Your task to perform on an android device: change the clock display to digital Image 0: 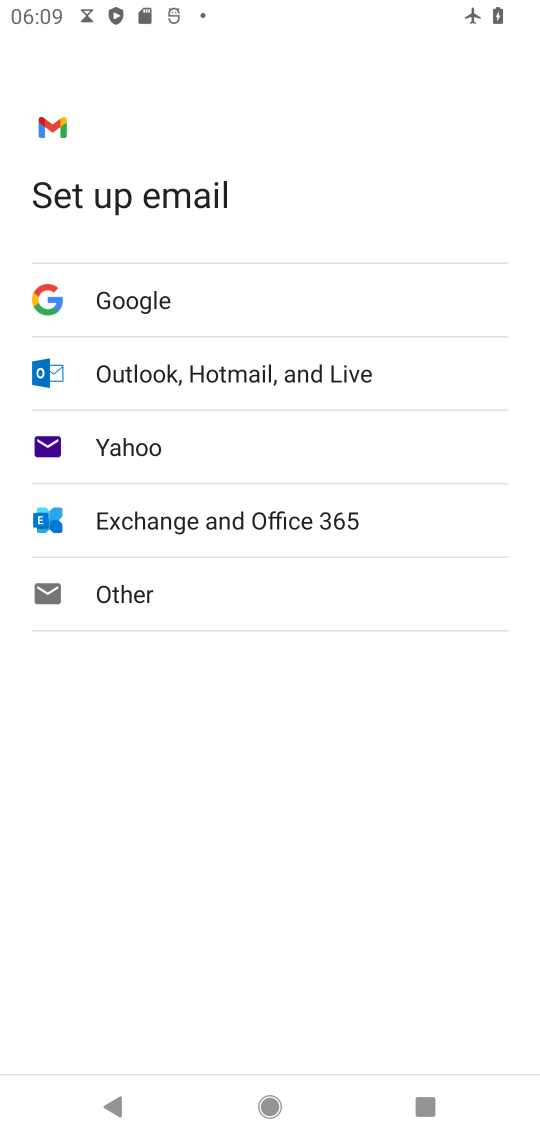
Step 0: press home button
Your task to perform on an android device: change the clock display to digital Image 1: 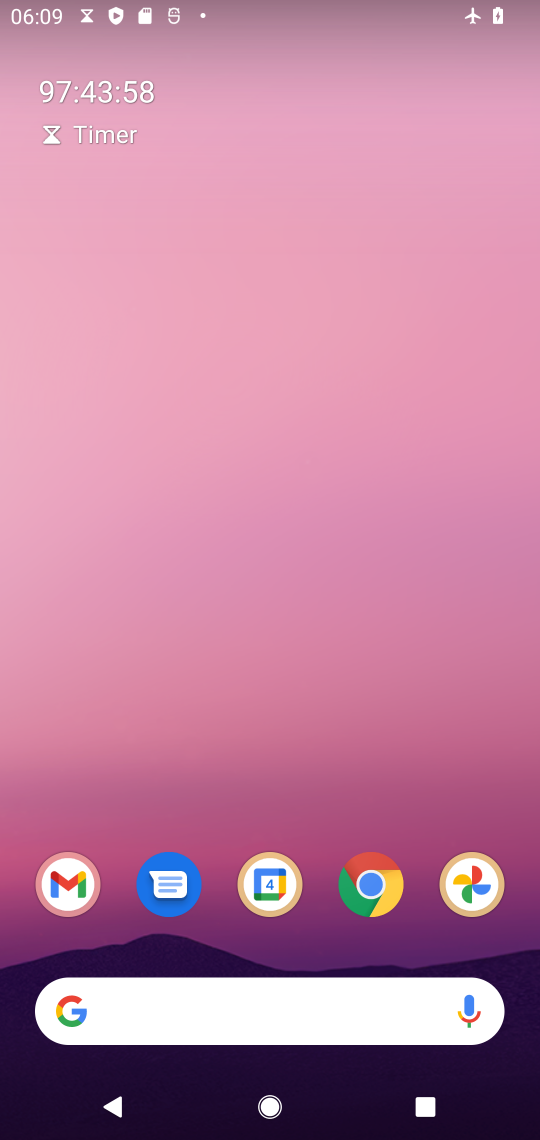
Step 1: drag from (274, 943) to (323, 338)
Your task to perform on an android device: change the clock display to digital Image 2: 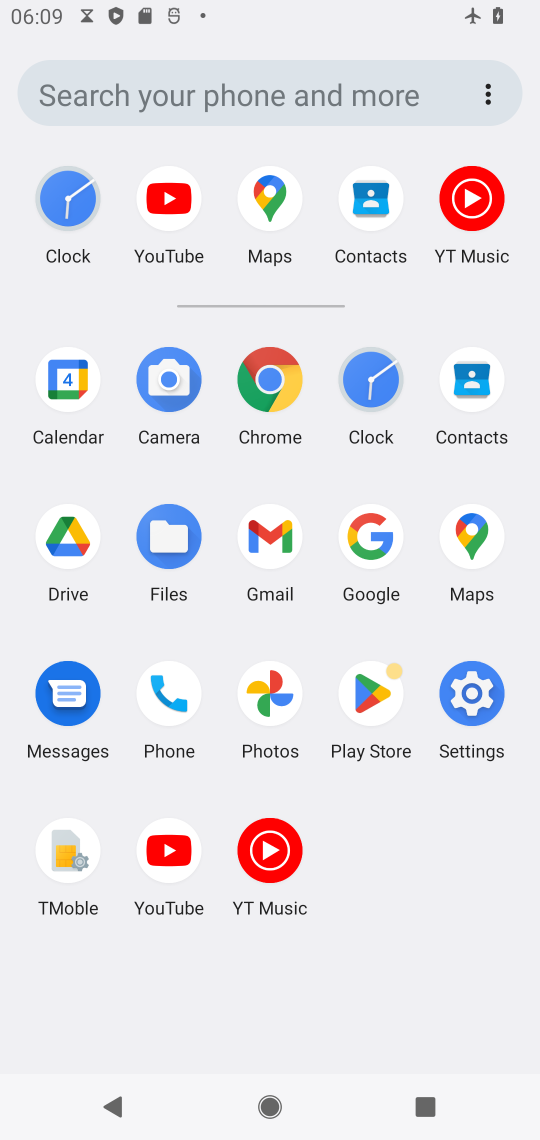
Step 2: click (357, 357)
Your task to perform on an android device: change the clock display to digital Image 3: 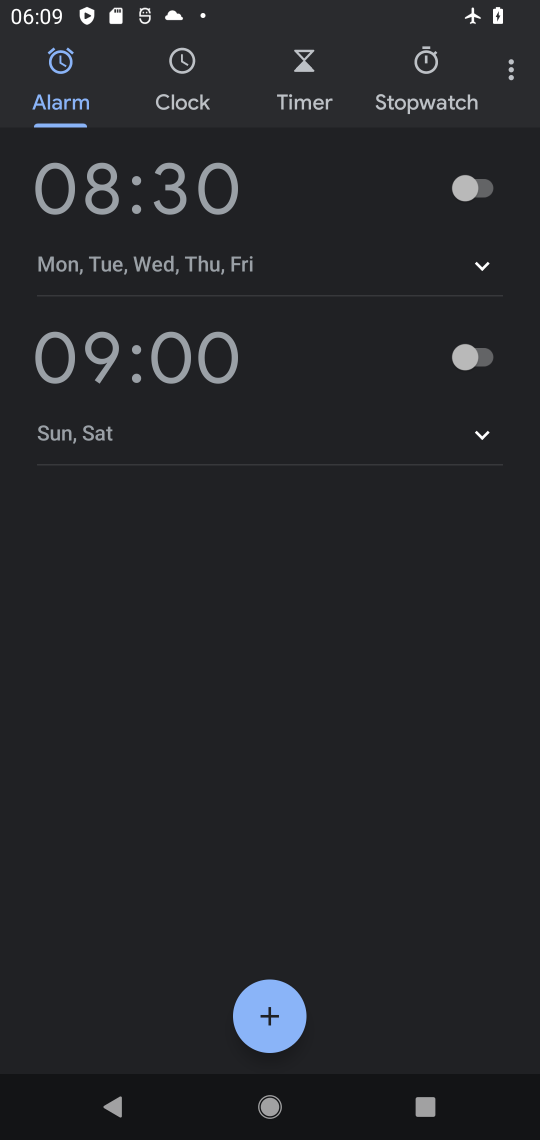
Step 3: click (507, 81)
Your task to perform on an android device: change the clock display to digital Image 4: 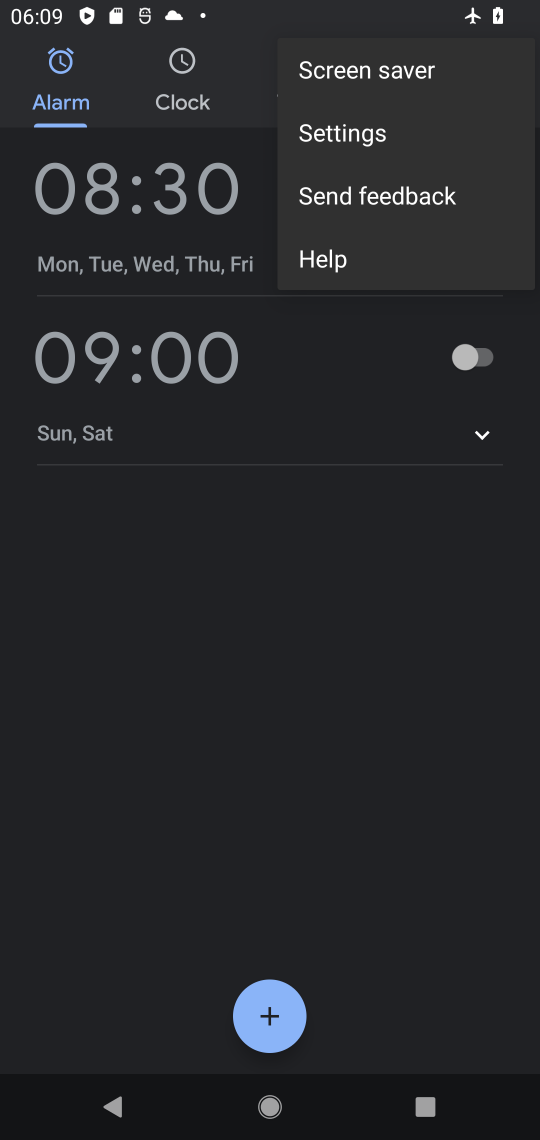
Step 4: click (386, 121)
Your task to perform on an android device: change the clock display to digital Image 5: 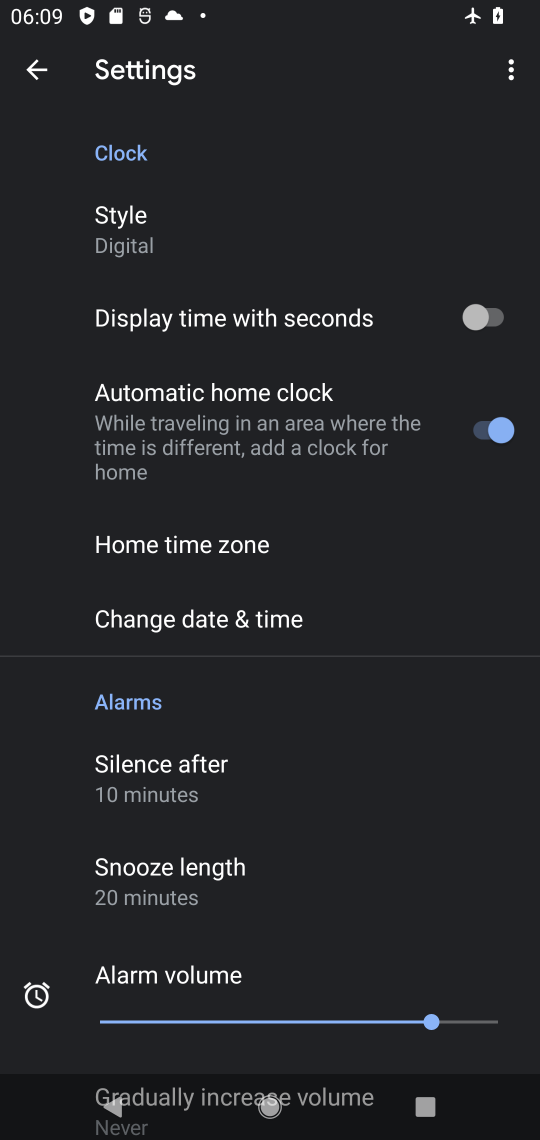
Step 5: click (148, 193)
Your task to perform on an android device: change the clock display to digital Image 6: 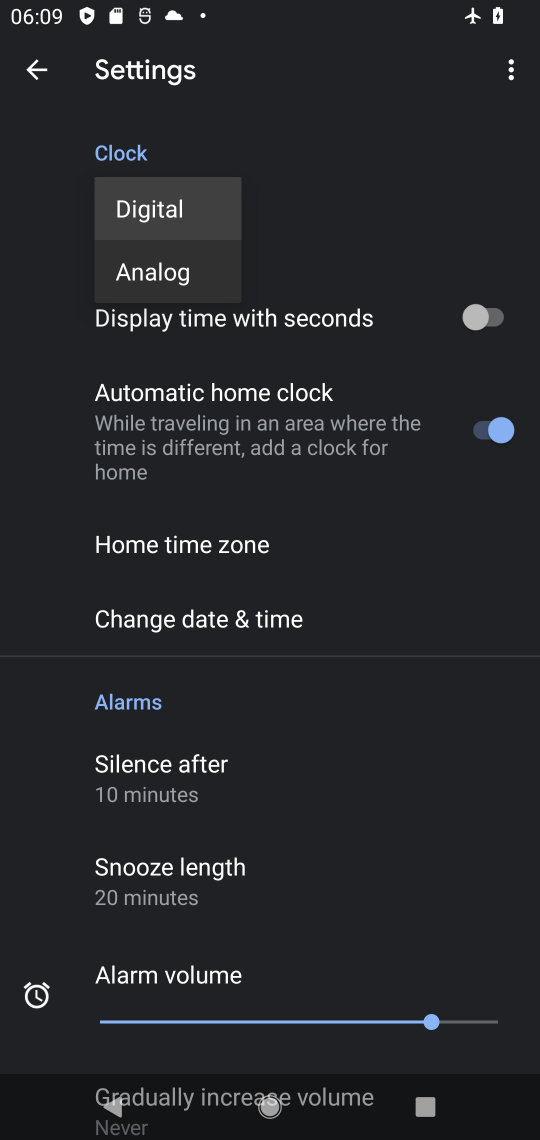
Step 6: click (148, 266)
Your task to perform on an android device: change the clock display to digital Image 7: 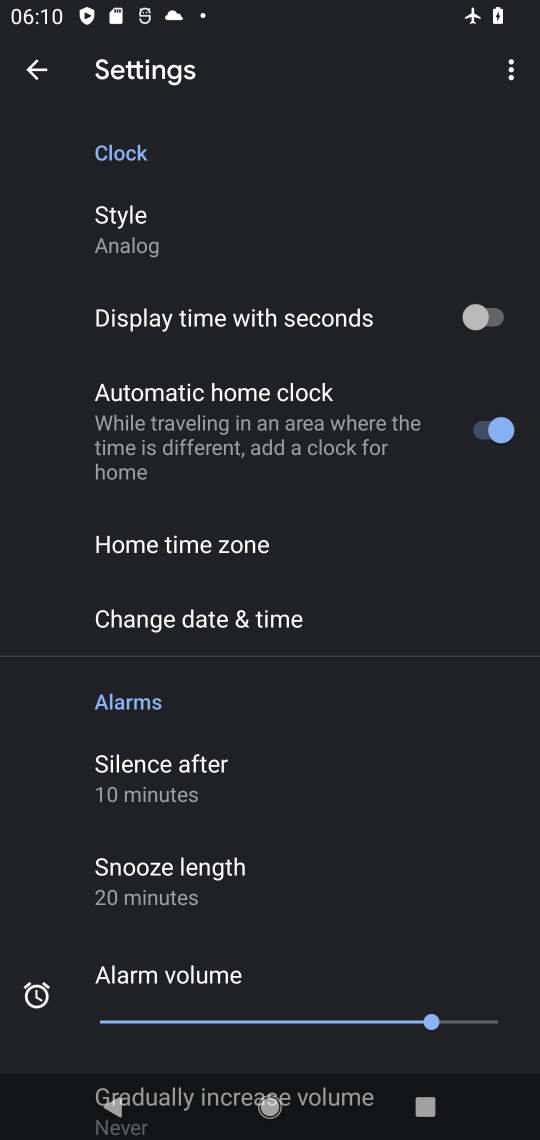
Step 7: task complete